Your task to perform on an android device: Is it going to rain today? Image 0: 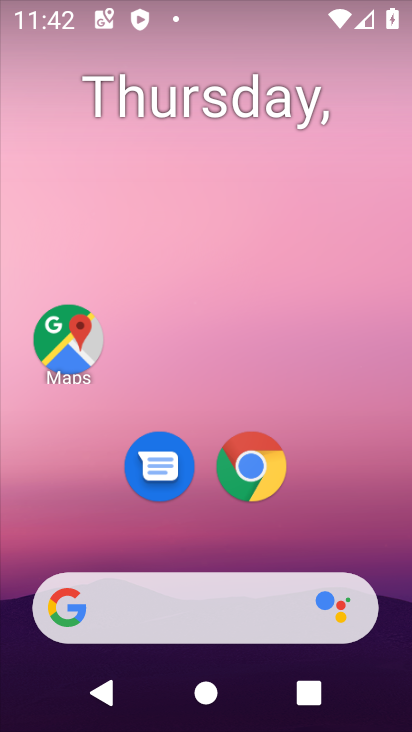
Step 0: click (172, 601)
Your task to perform on an android device: Is it going to rain today? Image 1: 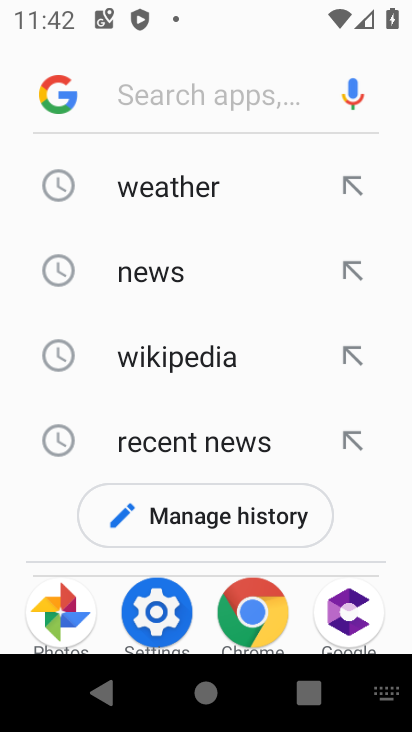
Step 1: click (187, 187)
Your task to perform on an android device: Is it going to rain today? Image 2: 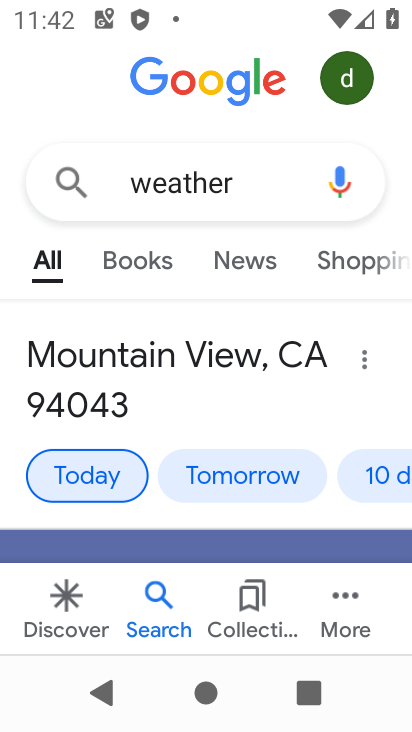
Step 2: task complete